Your task to perform on an android device: add a label to a message in the gmail app Image 0: 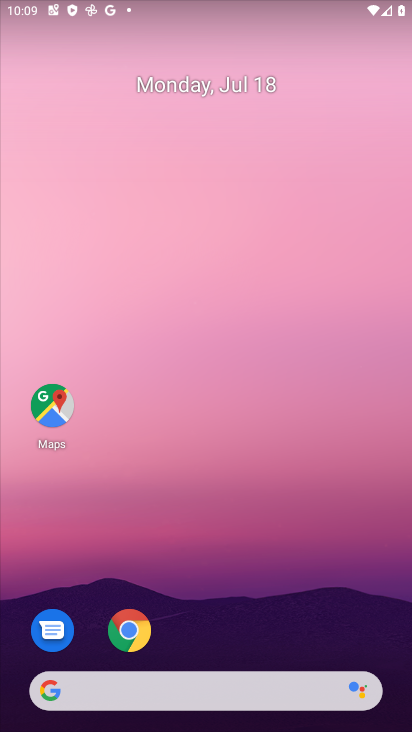
Step 0: drag from (367, 604) to (319, 73)
Your task to perform on an android device: add a label to a message in the gmail app Image 1: 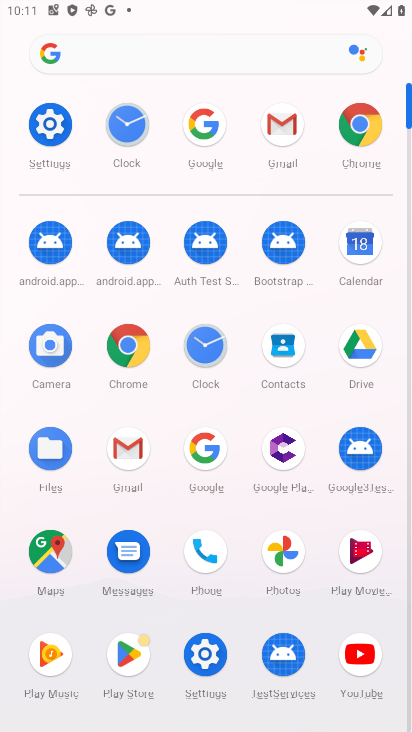
Step 1: click (136, 456)
Your task to perform on an android device: add a label to a message in the gmail app Image 2: 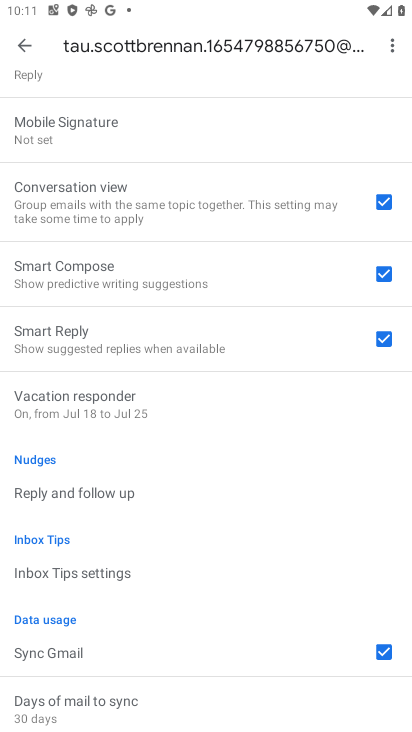
Step 2: task complete